Your task to perform on an android device: change text size in settings app Image 0: 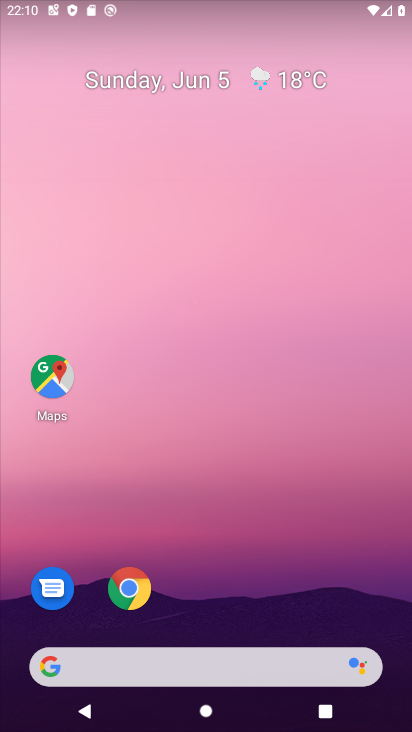
Step 0: drag from (363, 613) to (345, 187)
Your task to perform on an android device: change text size in settings app Image 1: 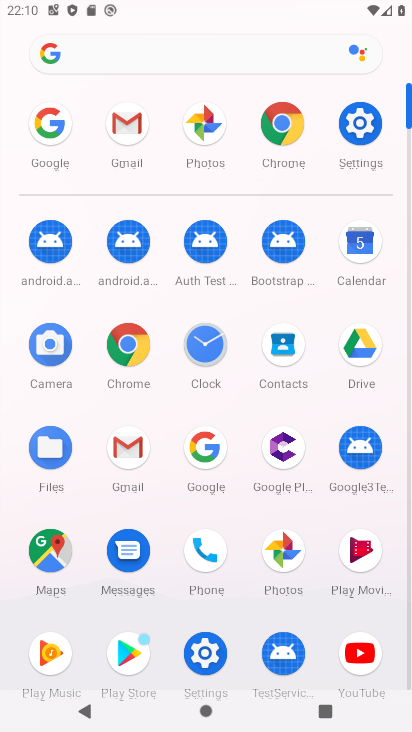
Step 1: click (365, 143)
Your task to perform on an android device: change text size in settings app Image 2: 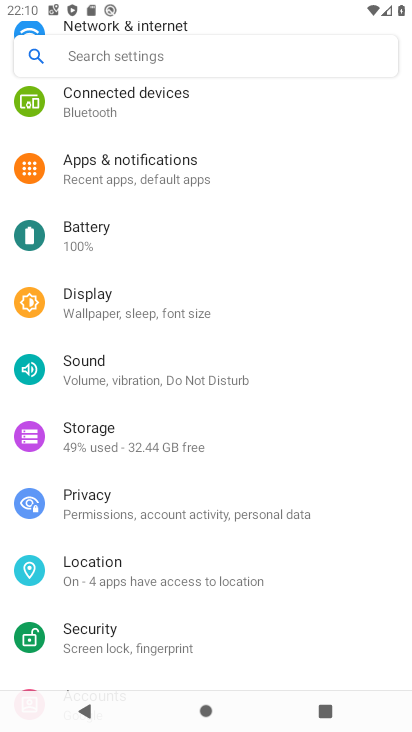
Step 2: drag from (336, 229) to (342, 387)
Your task to perform on an android device: change text size in settings app Image 3: 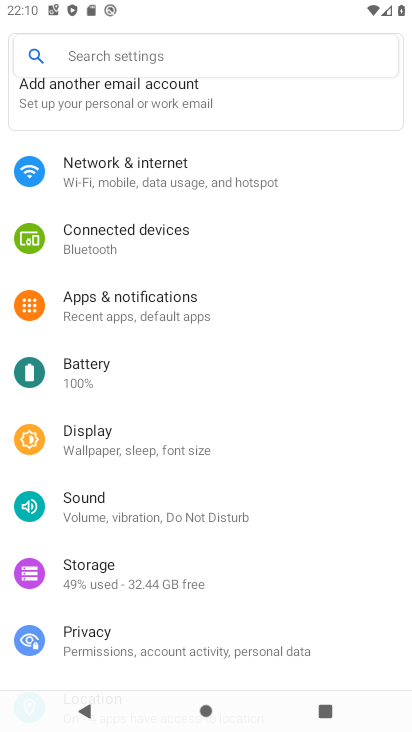
Step 3: drag from (342, 225) to (346, 394)
Your task to perform on an android device: change text size in settings app Image 4: 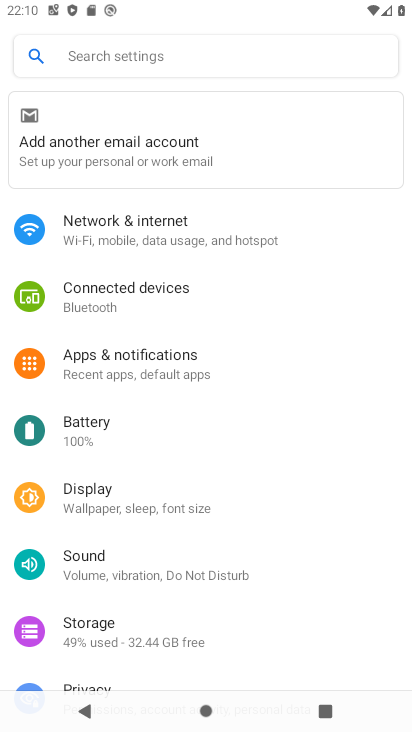
Step 4: drag from (341, 497) to (334, 339)
Your task to perform on an android device: change text size in settings app Image 5: 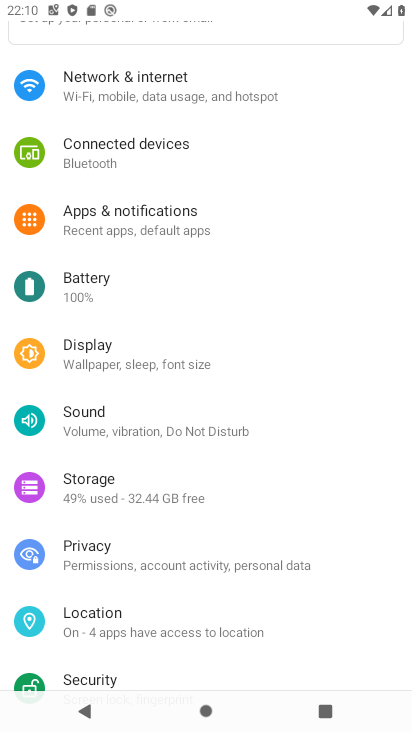
Step 5: click (196, 379)
Your task to perform on an android device: change text size in settings app Image 6: 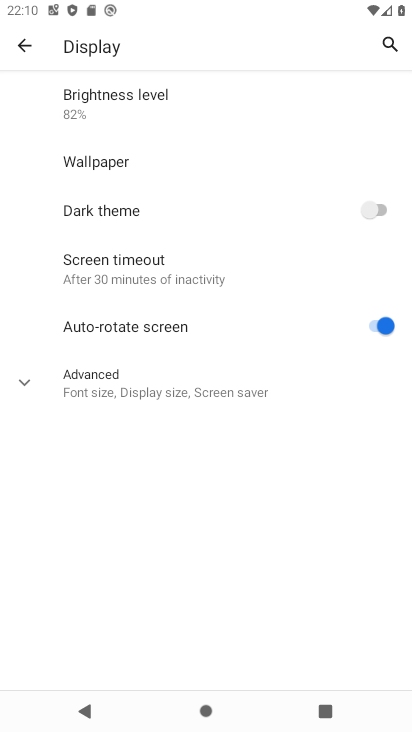
Step 6: click (196, 379)
Your task to perform on an android device: change text size in settings app Image 7: 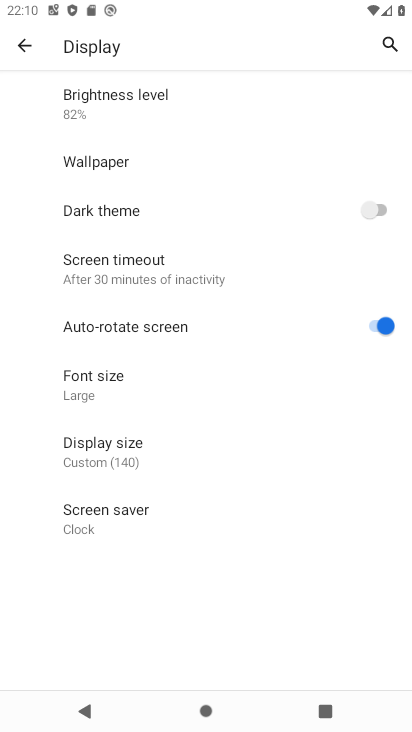
Step 7: click (125, 387)
Your task to perform on an android device: change text size in settings app Image 8: 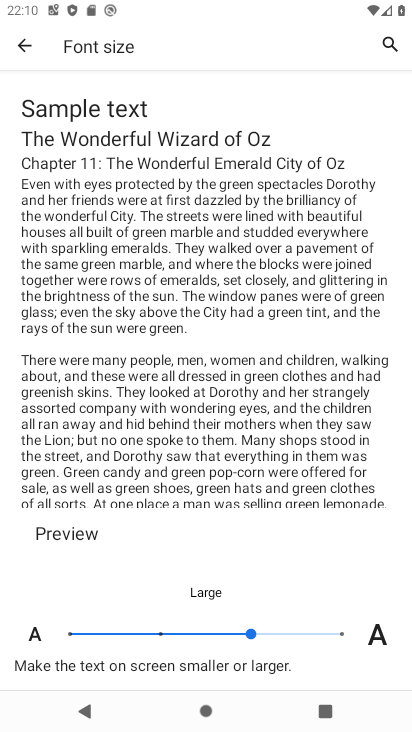
Step 8: click (162, 636)
Your task to perform on an android device: change text size in settings app Image 9: 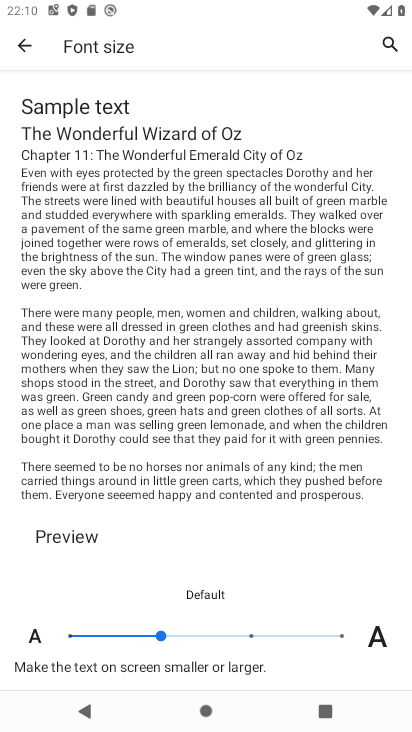
Step 9: task complete